Your task to perform on an android device: check google app version Image 0: 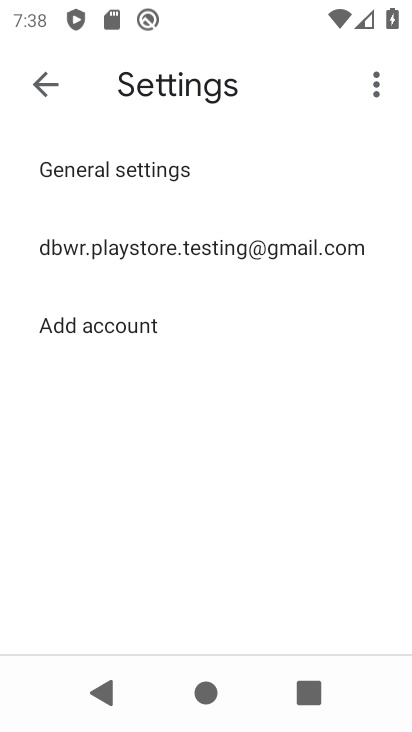
Step 0: press home button
Your task to perform on an android device: check google app version Image 1: 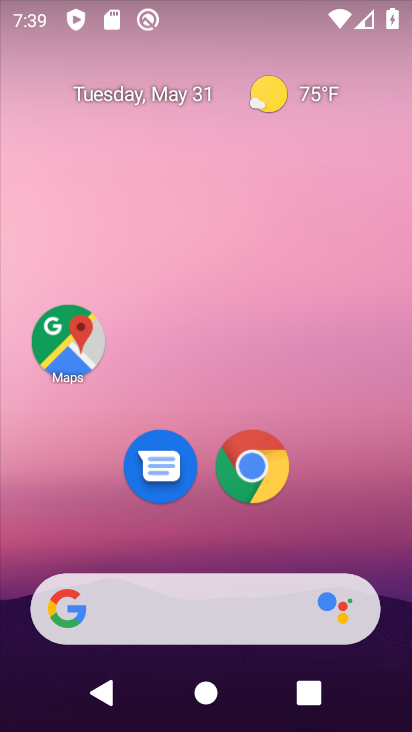
Step 1: drag from (210, 560) to (410, 4)
Your task to perform on an android device: check google app version Image 2: 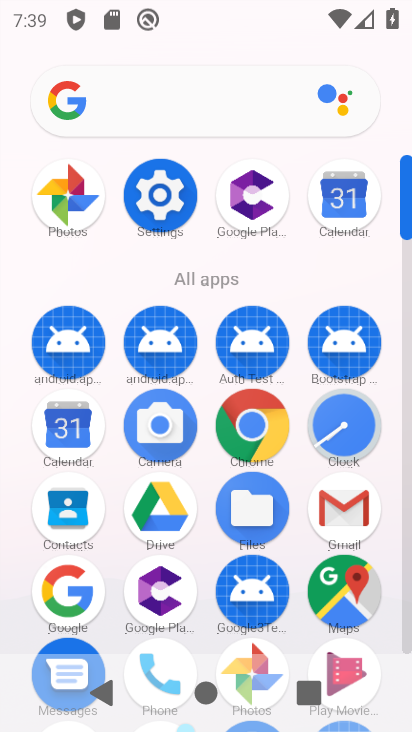
Step 2: click (80, 597)
Your task to perform on an android device: check google app version Image 3: 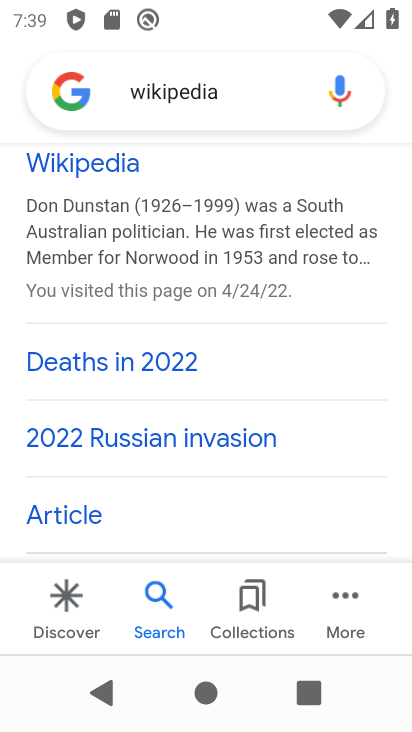
Step 3: click (338, 593)
Your task to perform on an android device: check google app version Image 4: 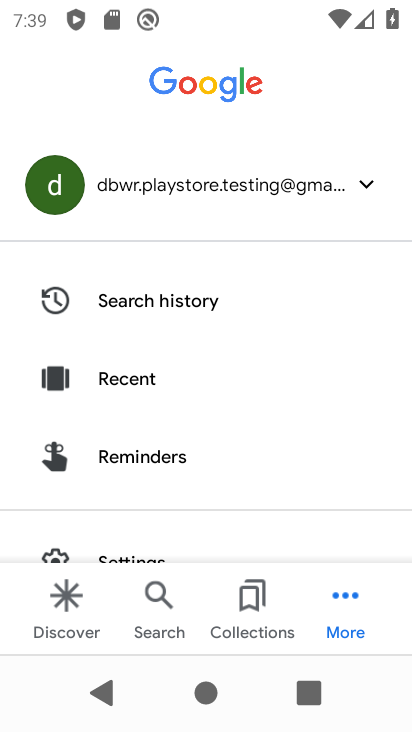
Step 4: drag from (169, 477) to (239, 10)
Your task to perform on an android device: check google app version Image 5: 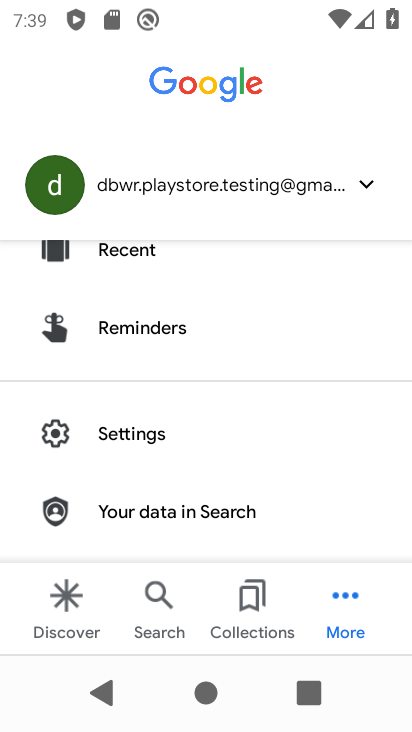
Step 5: click (127, 436)
Your task to perform on an android device: check google app version Image 6: 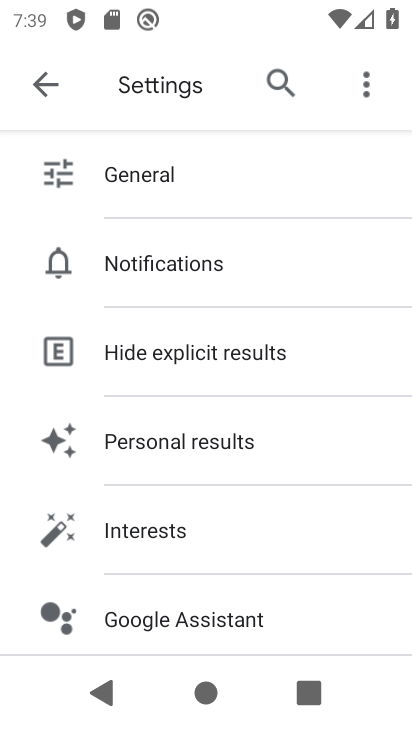
Step 6: drag from (237, 576) to (339, 13)
Your task to perform on an android device: check google app version Image 7: 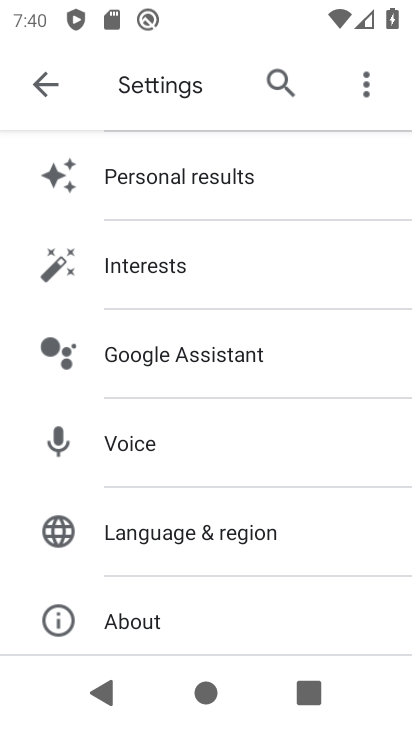
Step 7: click (154, 606)
Your task to perform on an android device: check google app version Image 8: 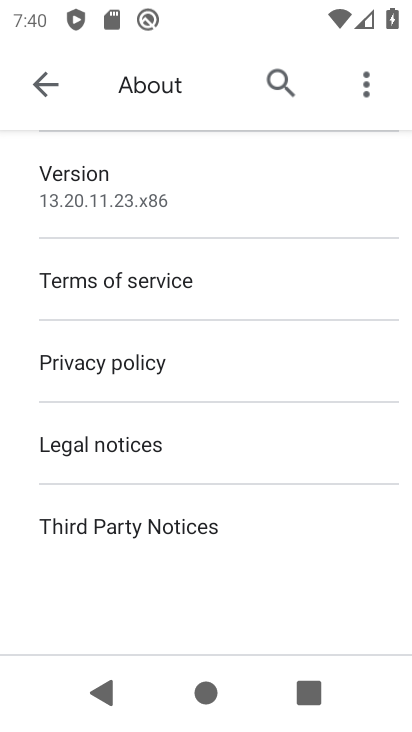
Step 8: click (171, 165)
Your task to perform on an android device: check google app version Image 9: 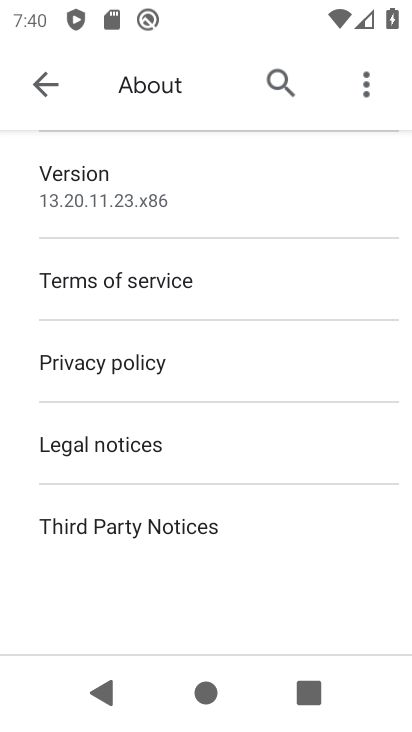
Step 9: task complete